Your task to perform on an android device: Go to calendar. Show me events next week Image 0: 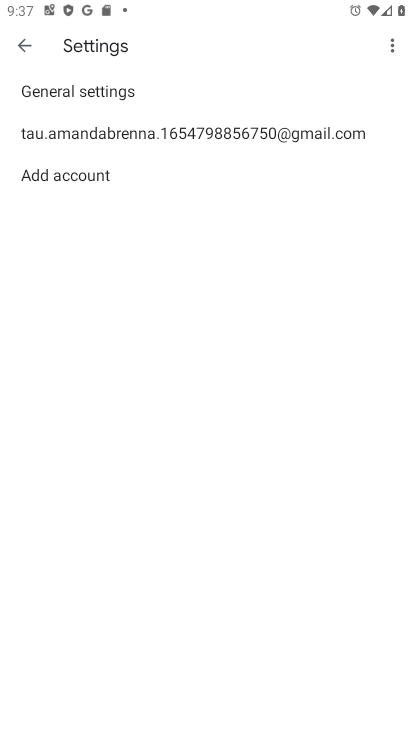
Step 0: press home button
Your task to perform on an android device: Go to calendar. Show me events next week Image 1: 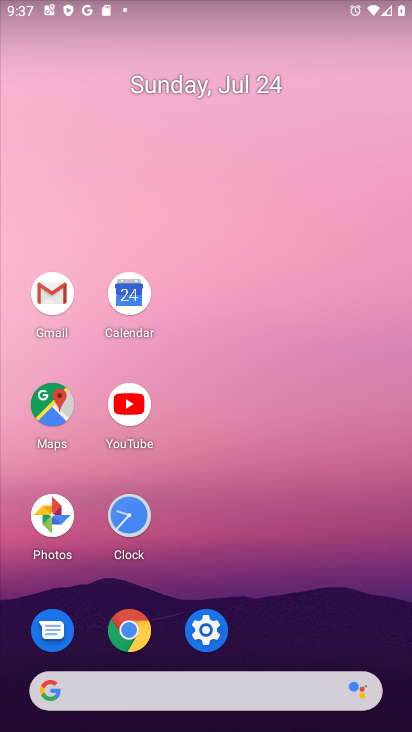
Step 1: click (109, 299)
Your task to perform on an android device: Go to calendar. Show me events next week Image 2: 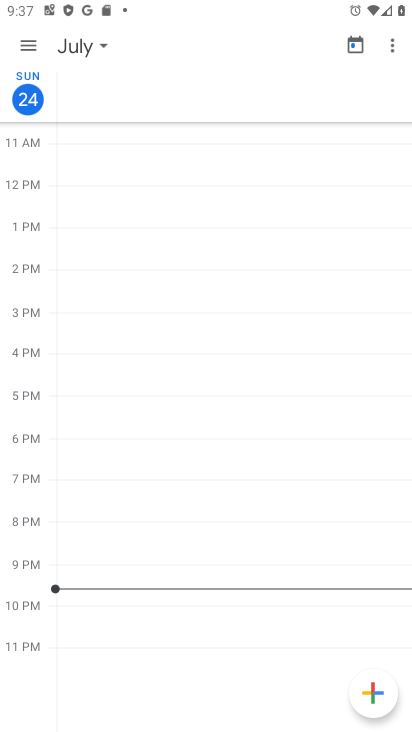
Step 2: click (27, 40)
Your task to perform on an android device: Go to calendar. Show me events next week Image 3: 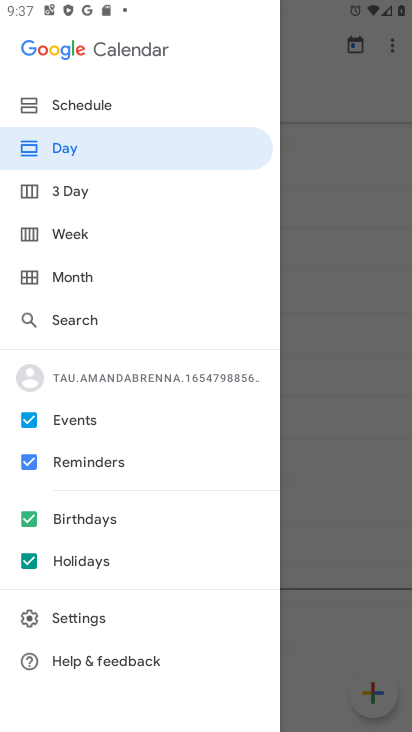
Step 3: click (70, 234)
Your task to perform on an android device: Go to calendar. Show me events next week Image 4: 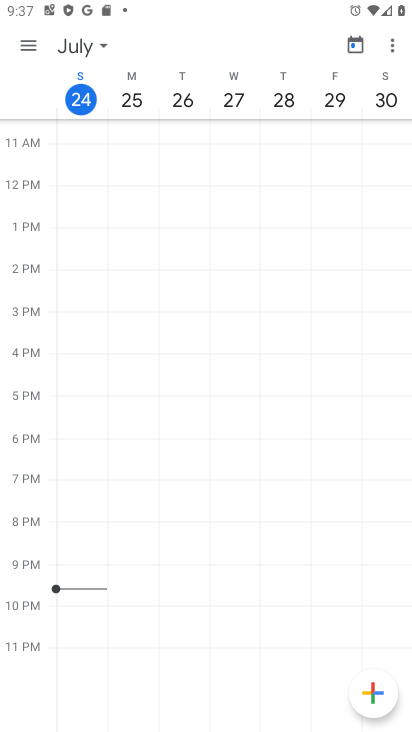
Step 4: click (98, 41)
Your task to perform on an android device: Go to calendar. Show me events next week Image 5: 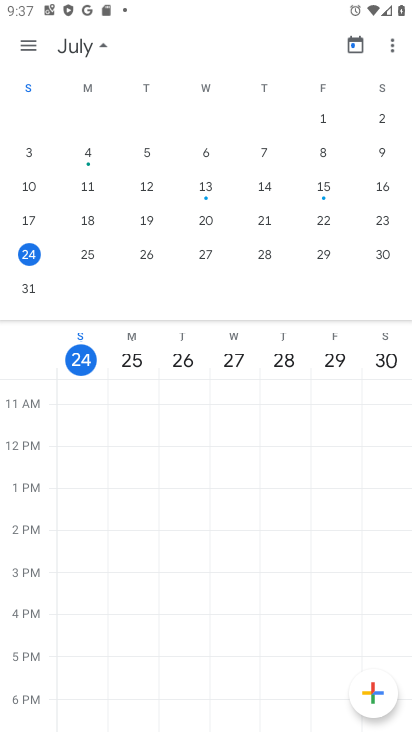
Step 5: click (22, 284)
Your task to perform on an android device: Go to calendar. Show me events next week Image 6: 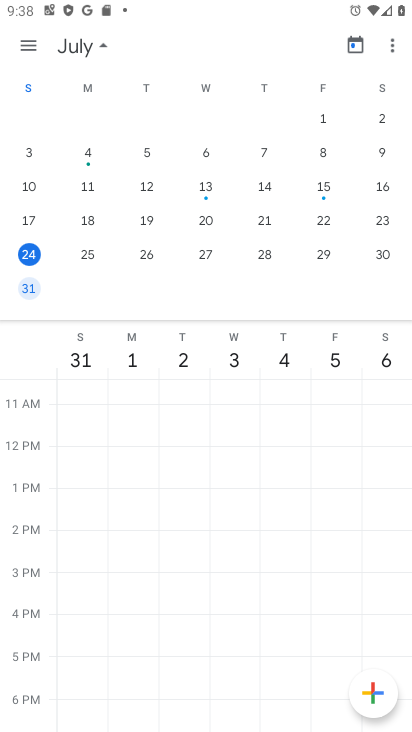
Step 6: task complete